Your task to perform on an android device: open chrome and create a bookmark for the current page Image 0: 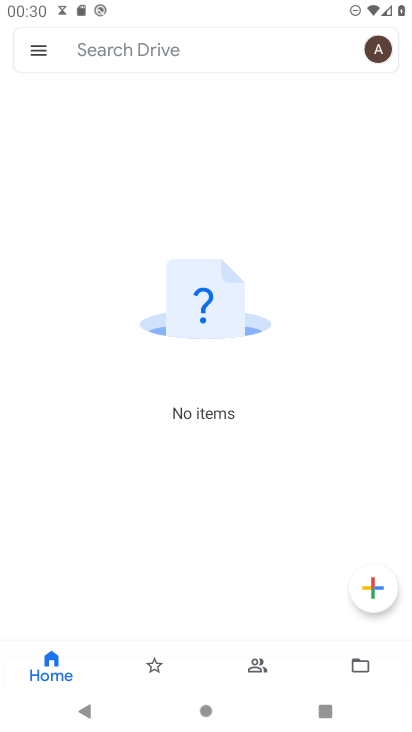
Step 0: press home button
Your task to perform on an android device: open chrome and create a bookmark for the current page Image 1: 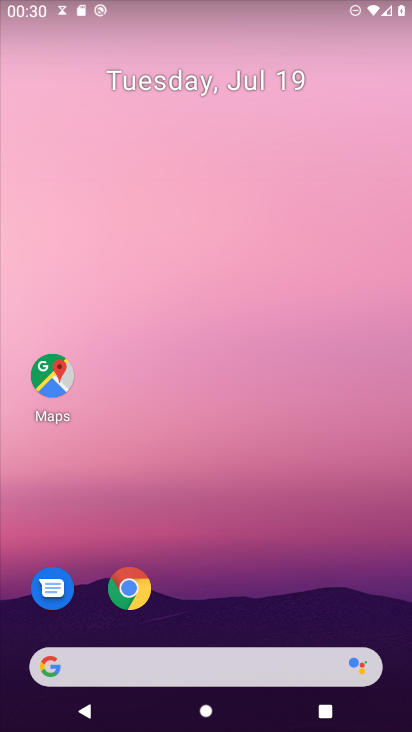
Step 1: click (125, 587)
Your task to perform on an android device: open chrome and create a bookmark for the current page Image 2: 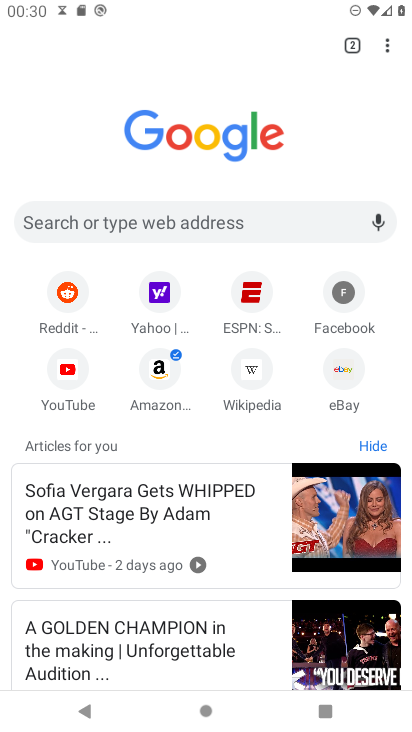
Step 2: click (384, 42)
Your task to perform on an android device: open chrome and create a bookmark for the current page Image 3: 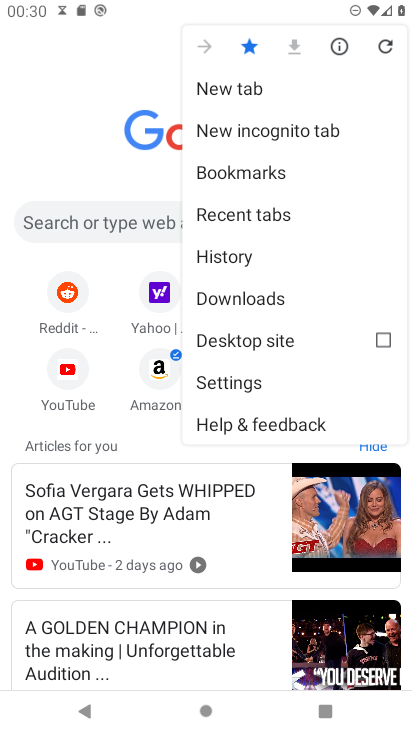
Step 3: task complete